Your task to perform on an android device: Search for vegetarian restaurants on Maps Image 0: 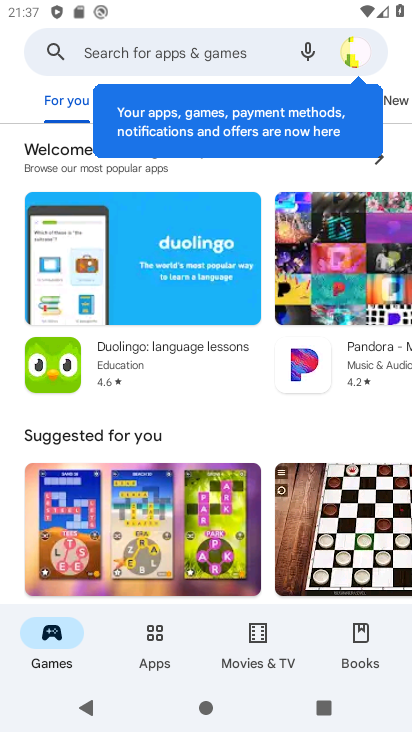
Step 0: press home button
Your task to perform on an android device: Search for vegetarian restaurants on Maps Image 1: 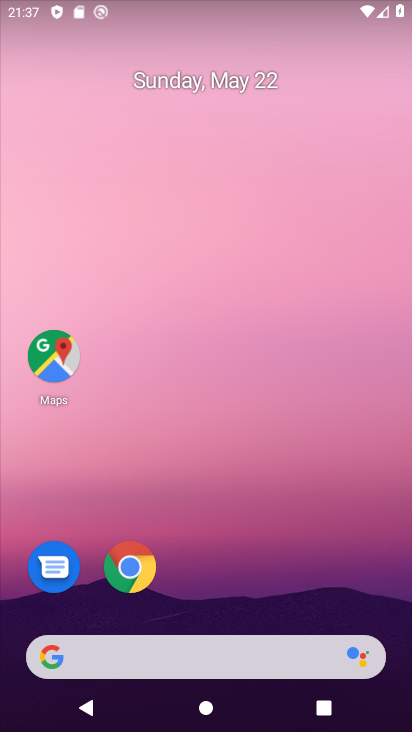
Step 1: click (44, 356)
Your task to perform on an android device: Search for vegetarian restaurants on Maps Image 2: 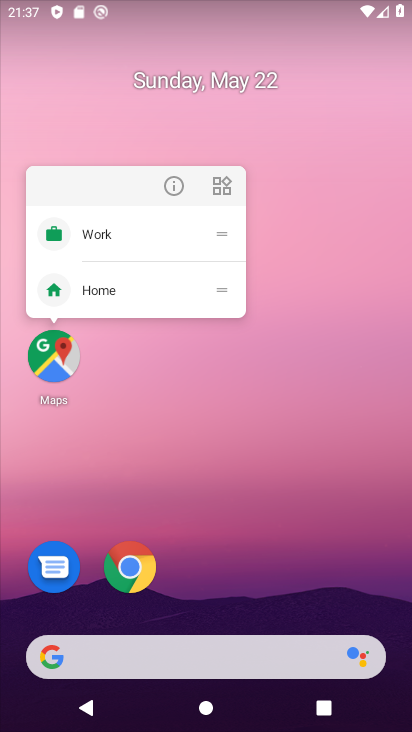
Step 2: click (44, 356)
Your task to perform on an android device: Search for vegetarian restaurants on Maps Image 3: 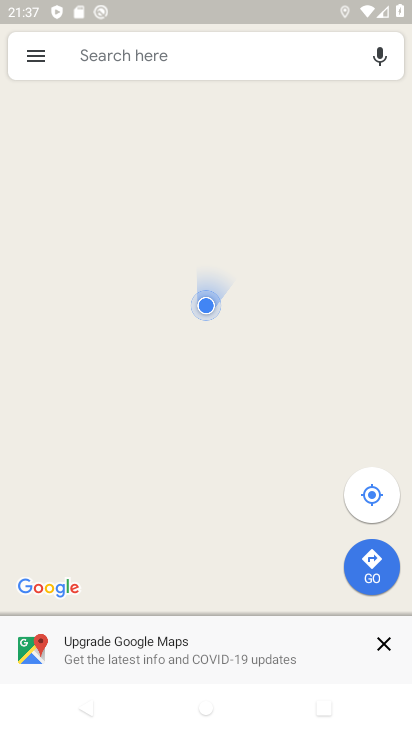
Step 3: click (185, 52)
Your task to perform on an android device: Search for vegetarian restaurants on Maps Image 4: 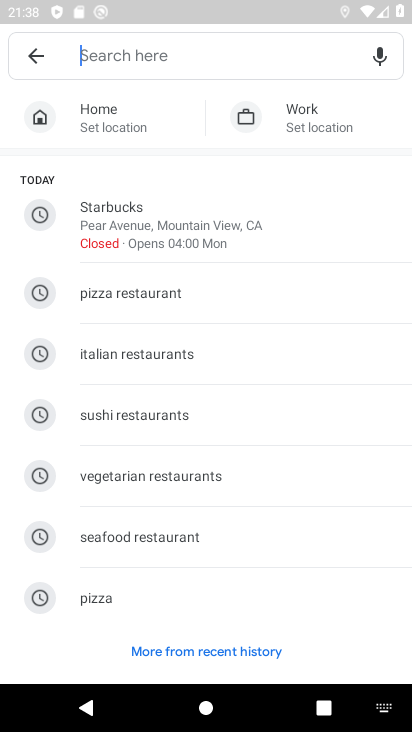
Step 4: click (184, 484)
Your task to perform on an android device: Search for vegetarian restaurants on Maps Image 5: 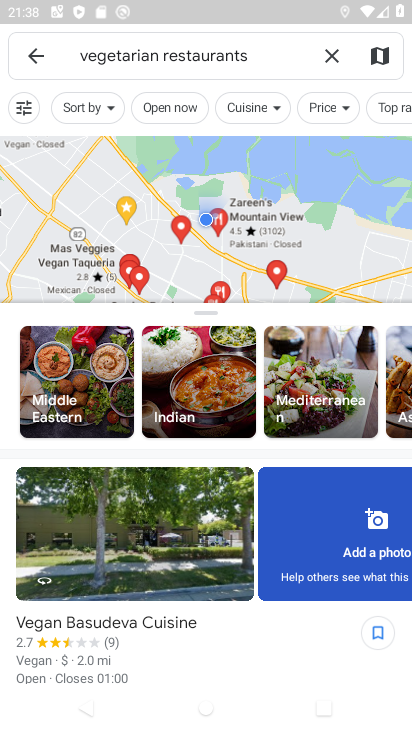
Step 5: task complete